Your task to perform on an android device: Go to notification settings Image 0: 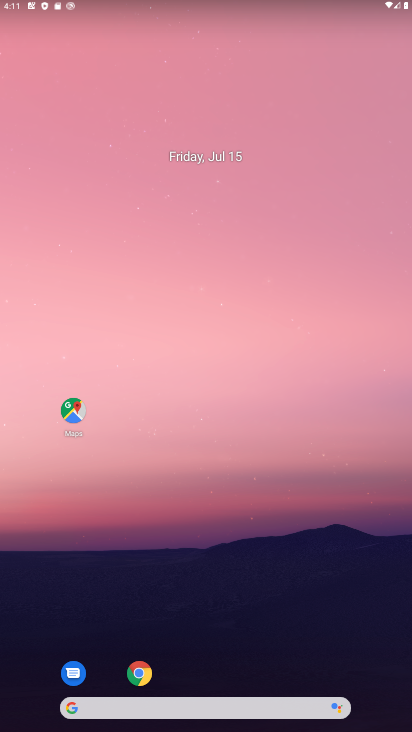
Step 0: drag from (304, 665) to (280, 212)
Your task to perform on an android device: Go to notification settings Image 1: 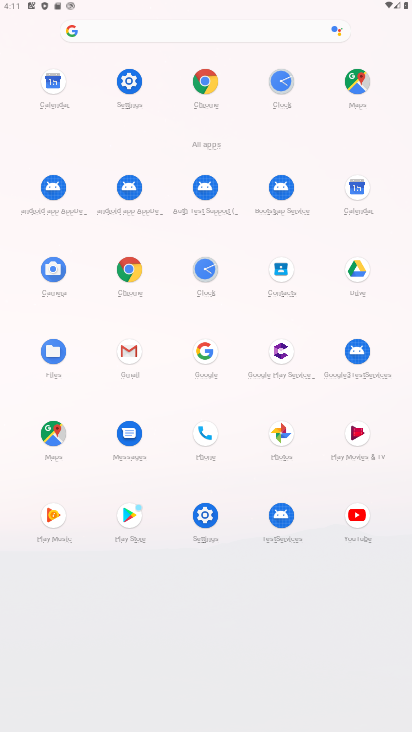
Step 1: click (132, 76)
Your task to perform on an android device: Go to notification settings Image 2: 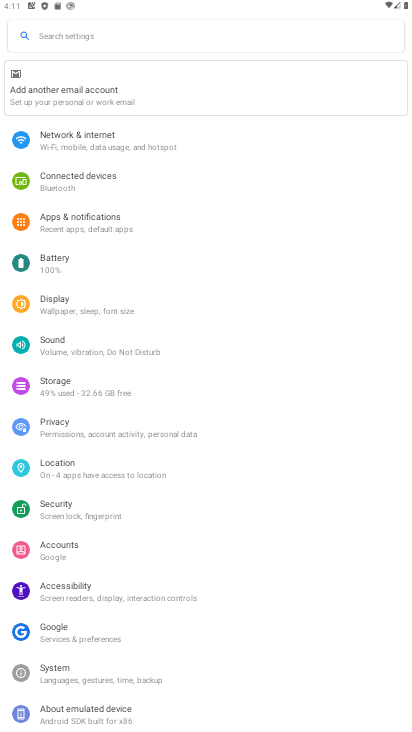
Step 2: click (102, 210)
Your task to perform on an android device: Go to notification settings Image 3: 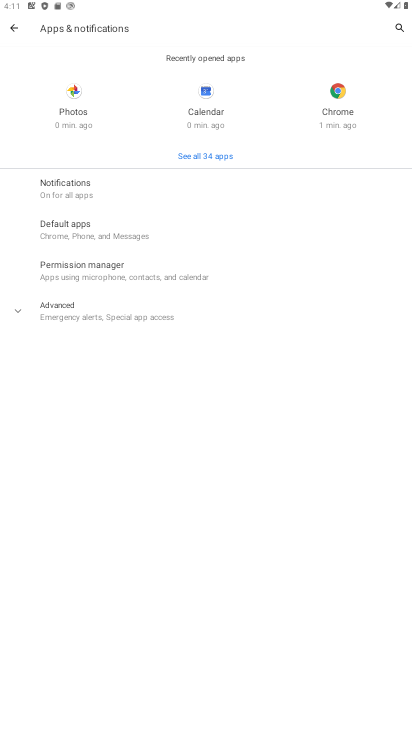
Step 3: click (88, 188)
Your task to perform on an android device: Go to notification settings Image 4: 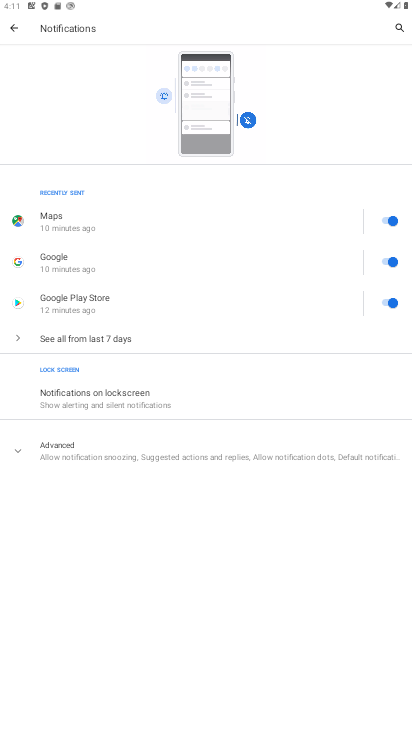
Step 4: task complete